Your task to perform on an android device: check data usage Image 0: 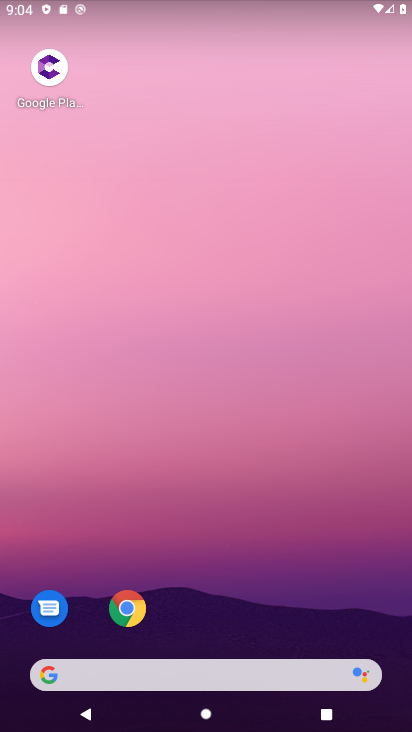
Step 0: drag from (252, 723) to (207, 213)
Your task to perform on an android device: check data usage Image 1: 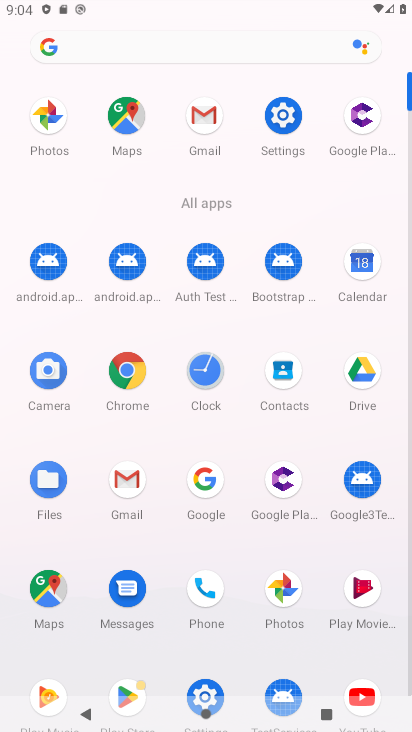
Step 1: click (295, 123)
Your task to perform on an android device: check data usage Image 2: 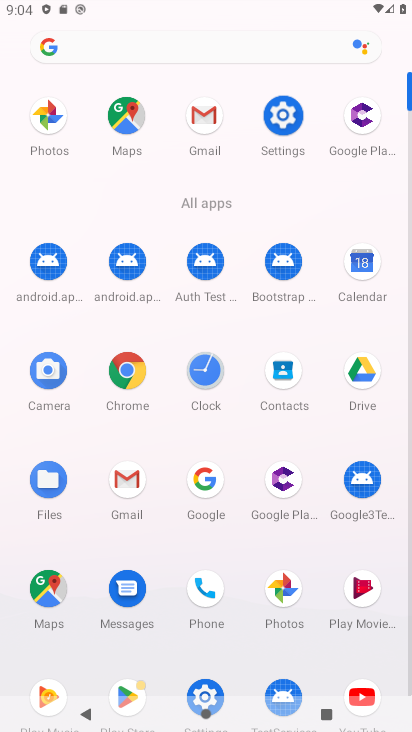
Step 2: click (295, 123)
Your task to perform on an android device: check data usage Image 3: 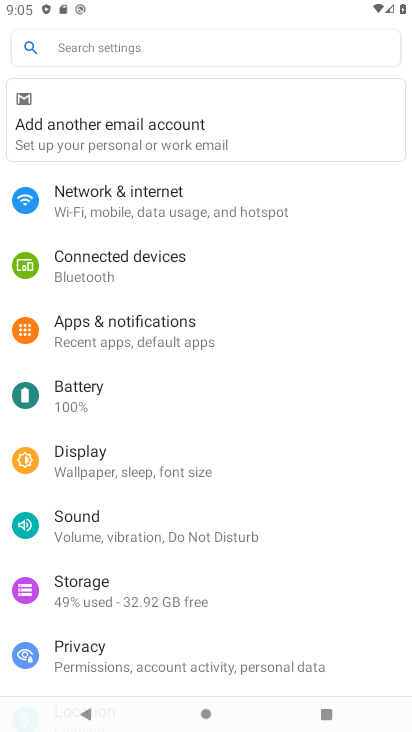
Step 3: click (145, 188)
Your task to perform on an android device: check data usage Image 4: 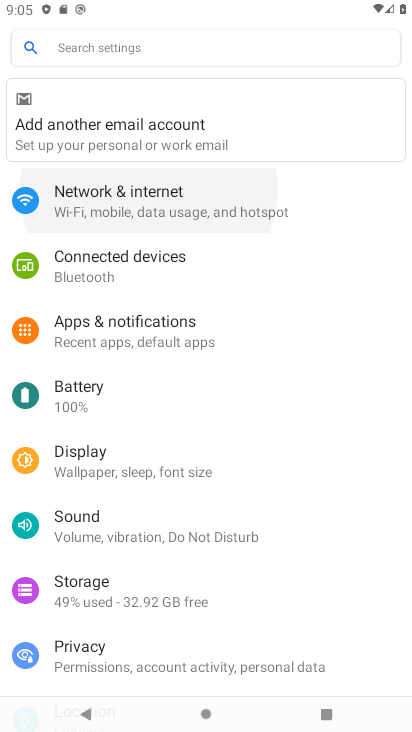
Step 4: click (145, 188)
Your task to perform on an android device: check data usage Image 5: 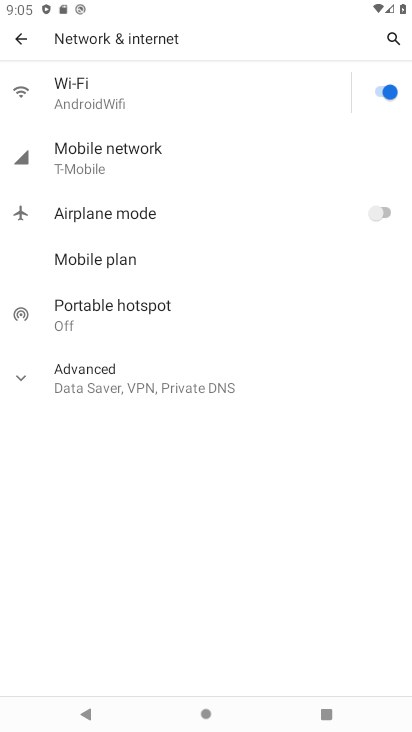
Step 5: click (82, 158)
Your task to perform on an android device: check data usage Image 6: 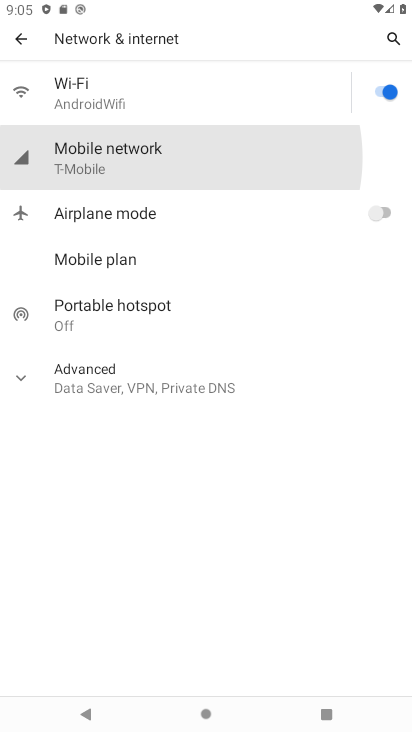
Step 6: click (82, 157)
Your task to perform on an android device: check data usage Image 7: 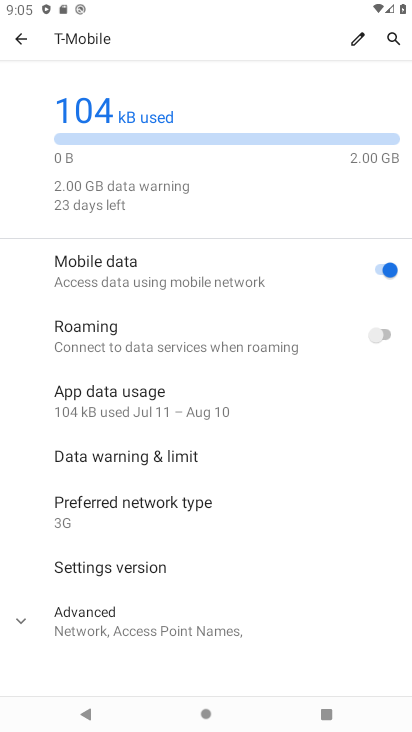
Step 7: task complete